Your task to perform on an android device: Open Google Chrome Image 0: 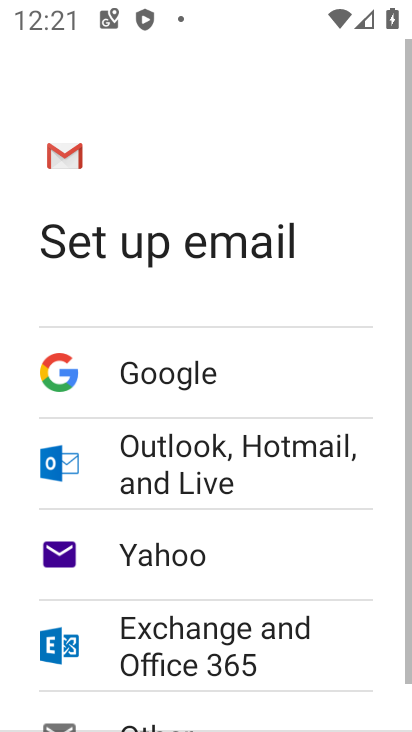
Step 0: press home button
Your task to perform on an android device: Open Google Chrome Image 1: 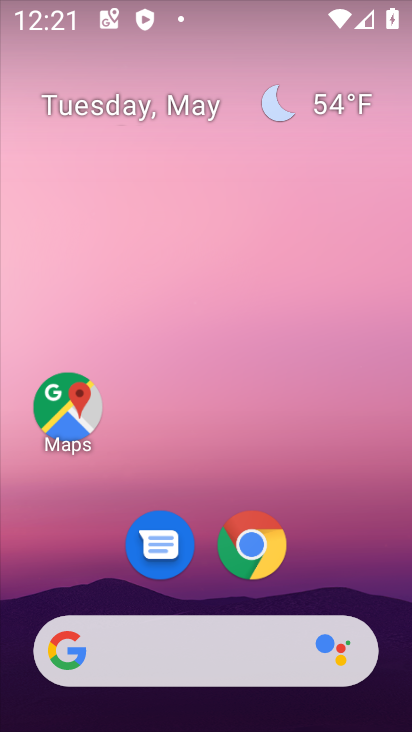
Step 1: click (263, 535)
Your task to perform on an android device: Open Google Chrome Image 2: 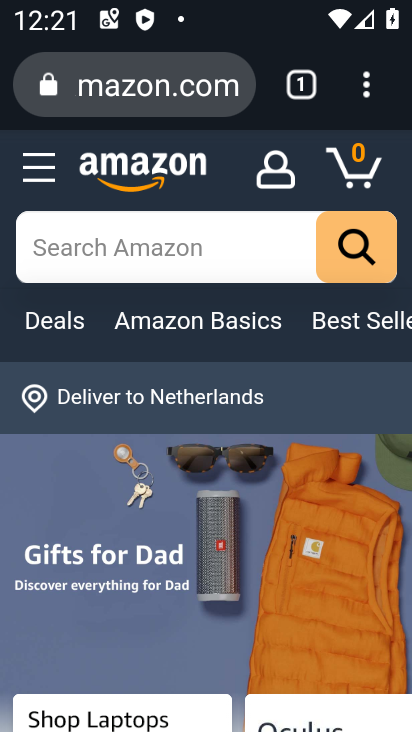
Step 2: task complete